Your task to perform on an android device: Do I have any events this weekend? Image 0: 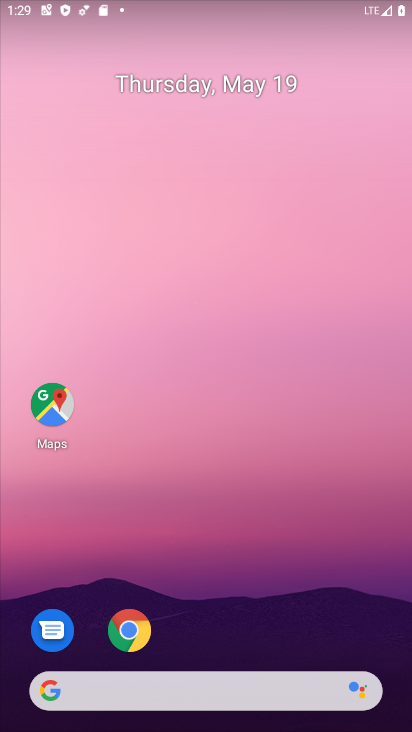
Step 0: click (183, 689)
Your task to perform on an android device: Do I have any events this weekend? Image 1: 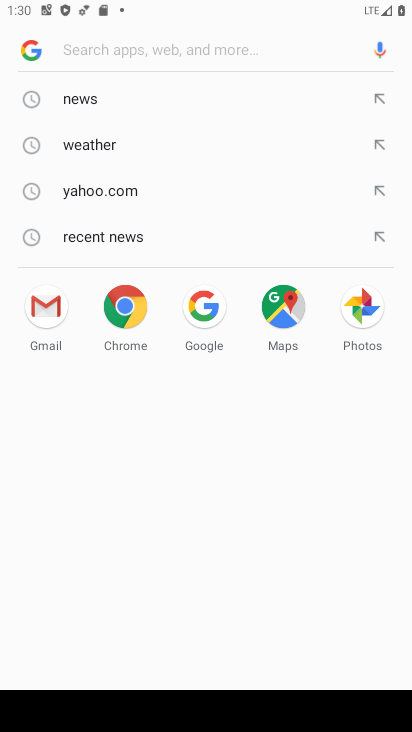
Step 1: click (80, 143)
Your task to perform on an android device: Do I have any events this weekend? Image 2: 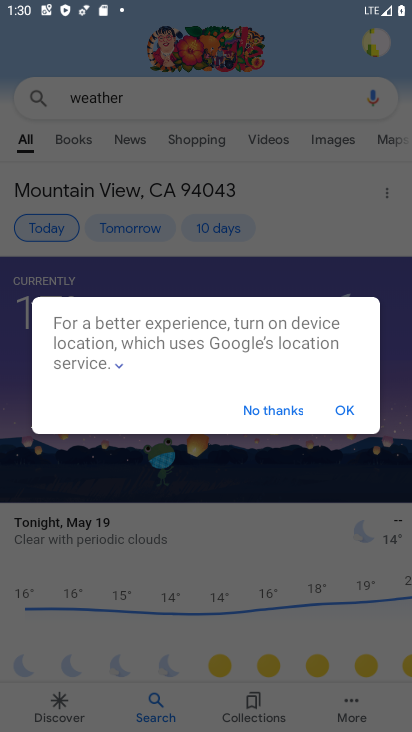
Step 2: click (340, 410)
Your task to perform on an android device: Do I have any events this weekend? Image 3: 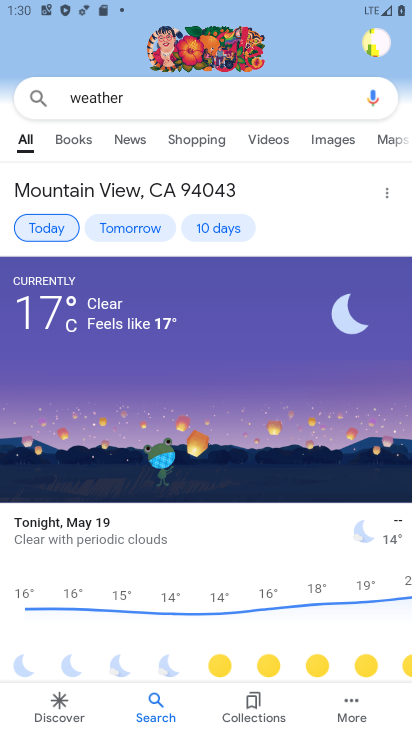
Step 3: click (209, 229)
Your task to perform on an android device: Do I have any events this weekend? Image 4: 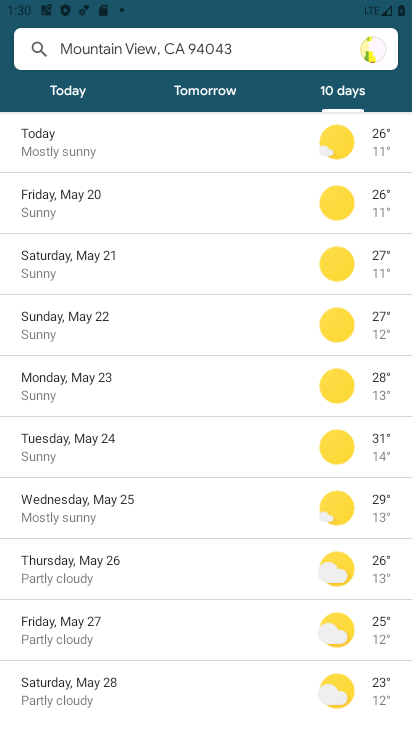
Step 4: task complete